Your task to perform on an android device: open device folders in google photos Image 0: 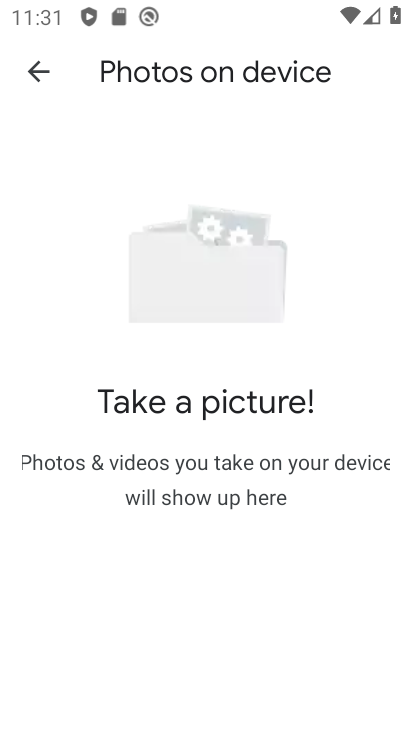
Step 0: press home button
Your task to perform on an android device: open device folders in google photos Image 1: 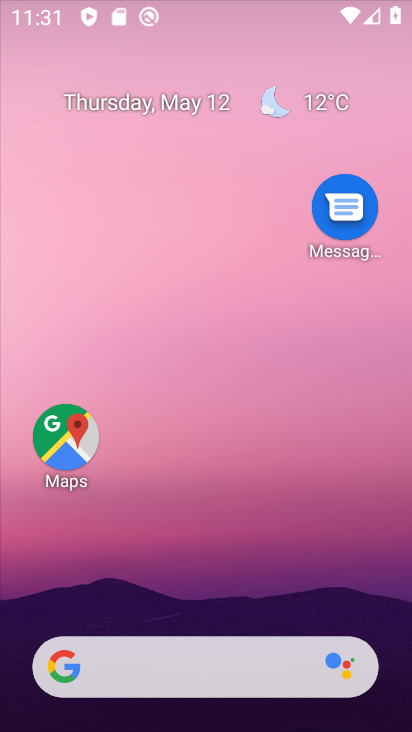
Step 1: drag from (299, 595) to (307, 0)
Your task to perform on an android device: open device folders in google photos Image 2: 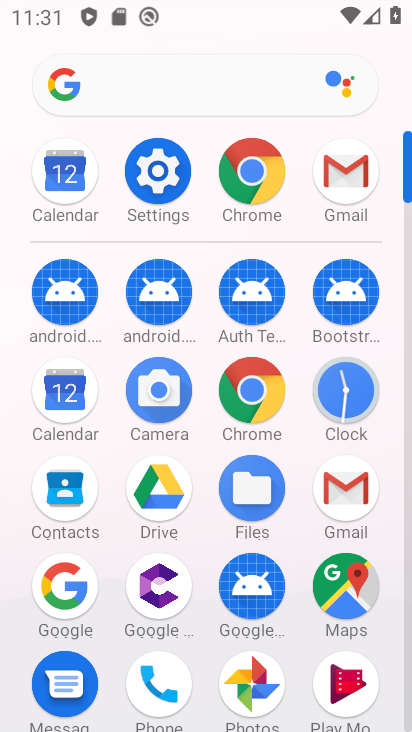
Step 2: click (251, 670)
Your task to perform on an android device: open device folders in google photos Image 3: 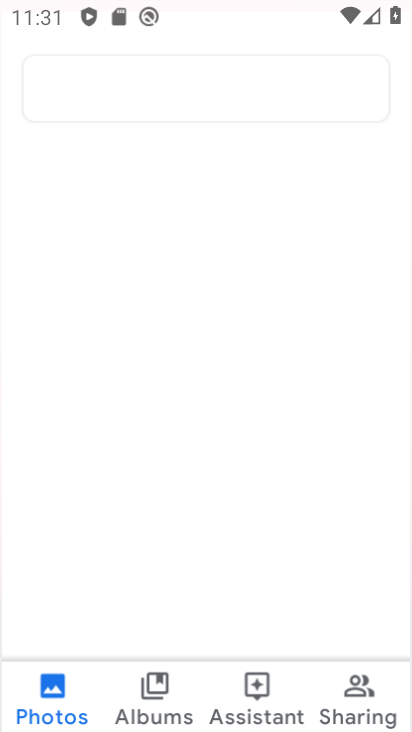
Step 3: click (251, 665)
Your task to perform on an android device: open device folders in google photos Image 4: 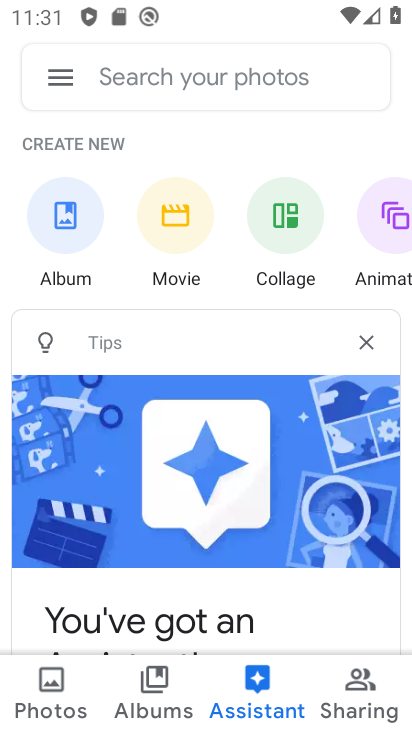
Step 4: click (63, 93)
Your task to perform on an android device: open device folders in google photos Image 5: 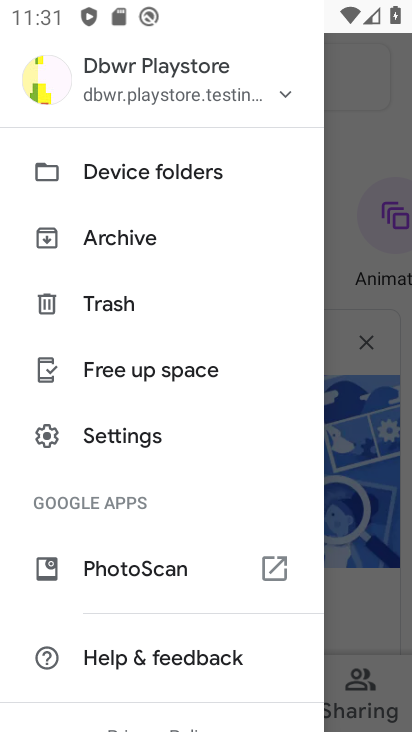
Step 5: click (122, 150)
Your task to perform on an android device: open device folders in google photos Image 6: 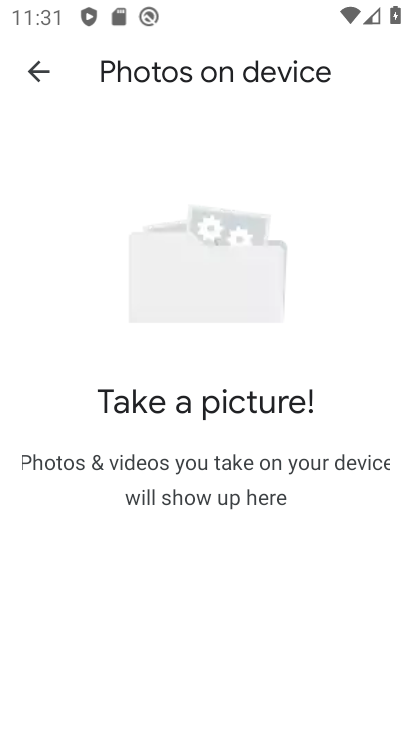
Step 6: task complete